Your task to perform on an android device: Open the map Image 0: 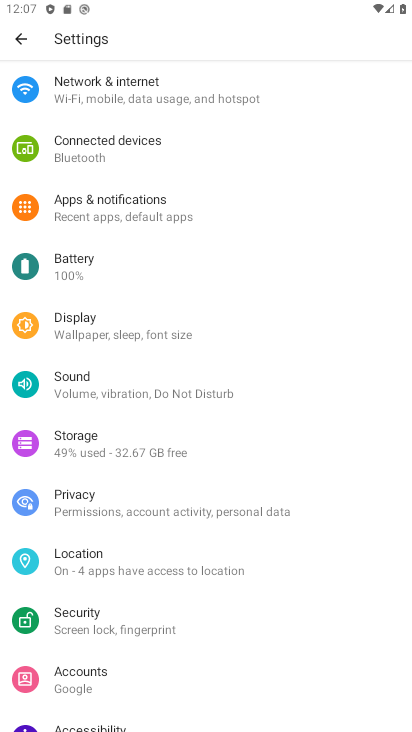
Step 0: press home button
Your task to perform on an android device: Open the map Image 1: 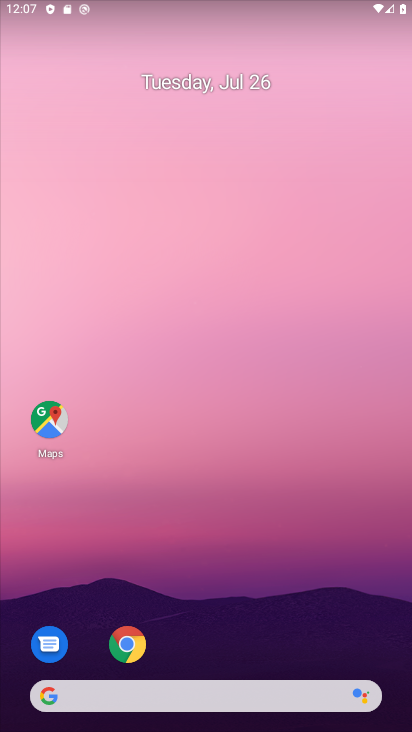
Step 1: click (53, 415)
Your task to perform on an android device: Open the map Image 2: 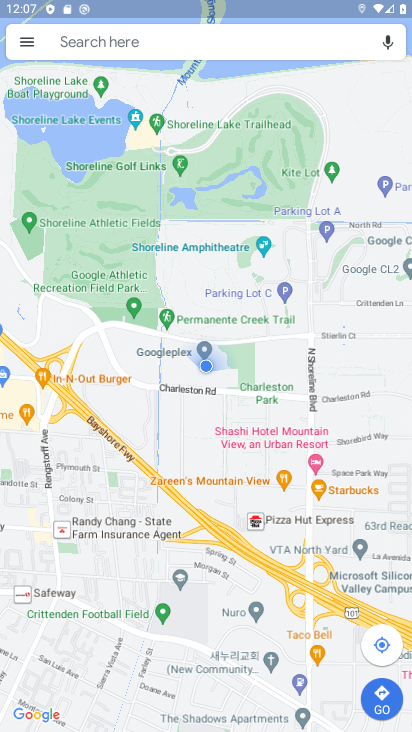
Step 2: task complete